Your task to perform on an android device: What's on my calendar tomorrow? Image 0: 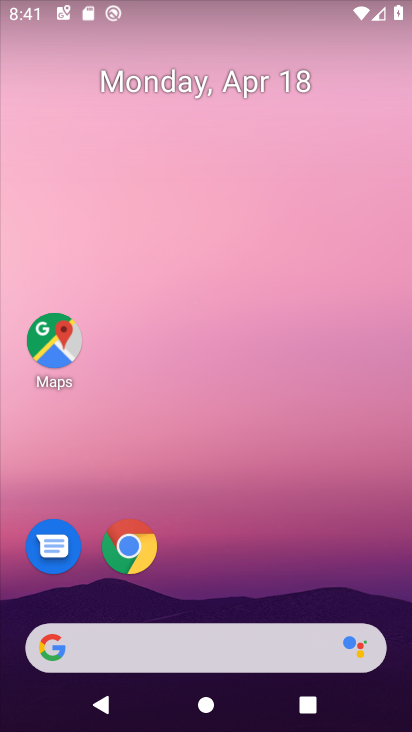
Step 0: drag from (382, 600) to (335, 277)
Your task to perform on an android device: What's on my calendar tomorrow? Image 1: 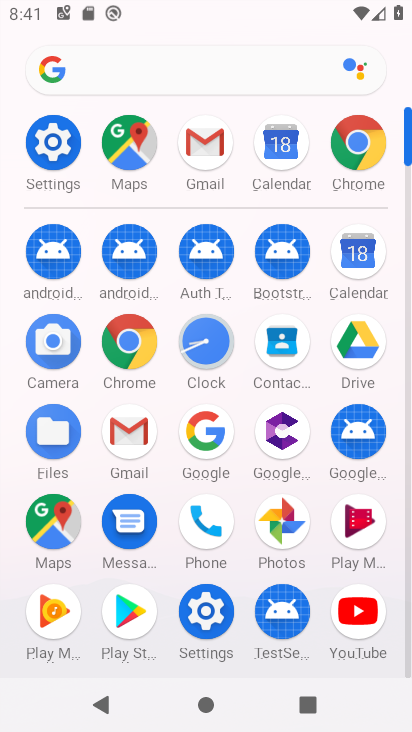
Step 1: click (355, 282)
Your task to perform on an android device: What's on my calendar tomorrow? Image 2: 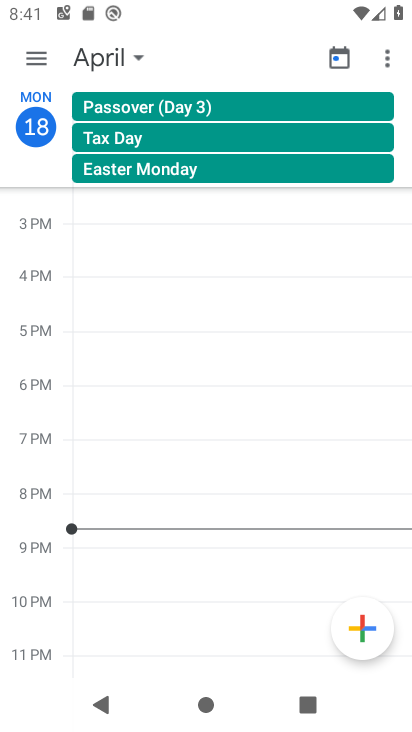
Step 2: click (103, 70)
Your task to perform on an android device: What's on my calendar tomorrow? Image 3: 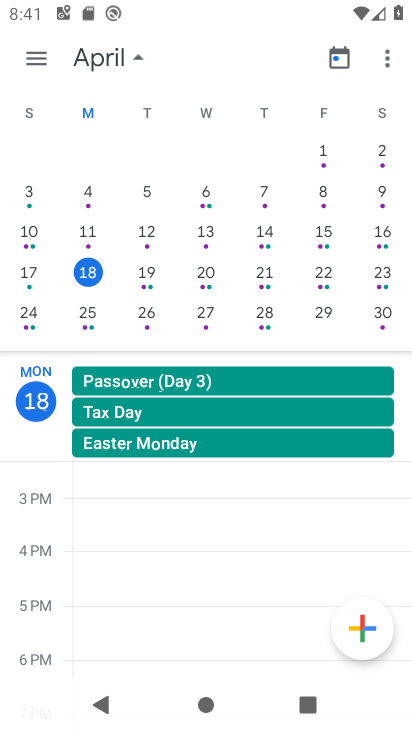
Step 3: click (194, 281)
Your task to perform on an android device: What's on my calendar tomorrow? Image 4: 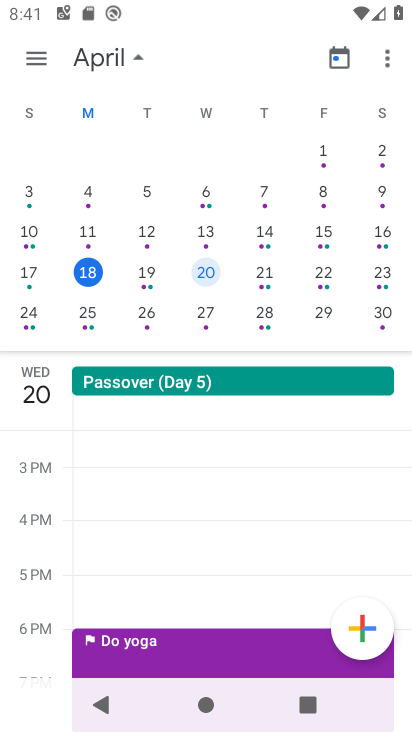
Step 4: click (129, 52)
Your task to perform on an android device: What's on my calendar tomorrow? Image 5: 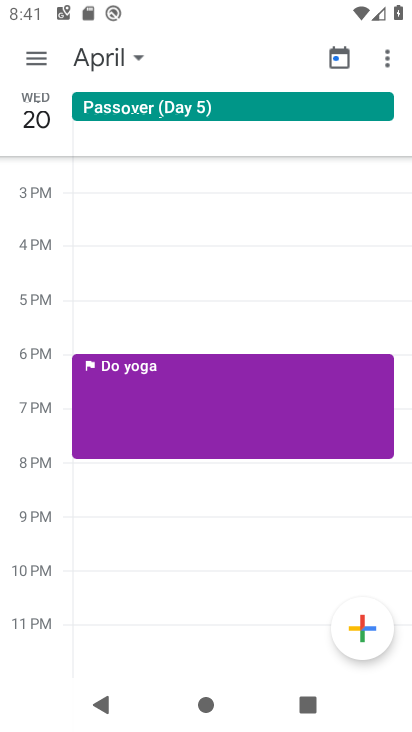
Step 5: task complete